Your task to perform on an android device: Search for a new lawnmower on Lowes.com Image 0: 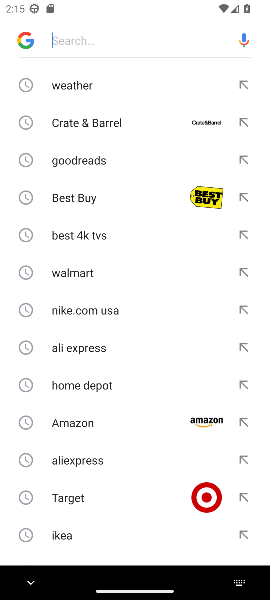
Step 0: click (101, 40)
Your task to perform on an android device: Search for a new lawnmower on Lowes.com Image 1: 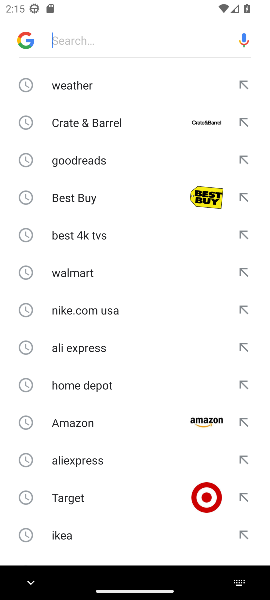
Step 1: type "Lowes.com"
Your task to perform on an android device: Search for a new lawnmower on Lowes.com Image 2: 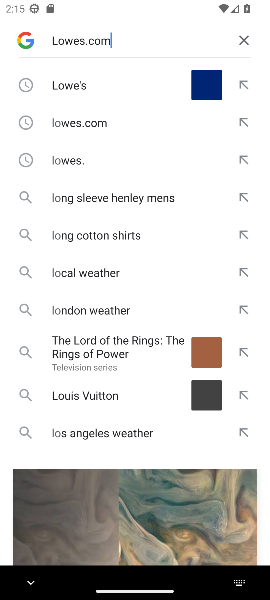
Step 2: press enter
Your task to perform on an android device: Search for a new lawnmower on Lowes.com Image 3: 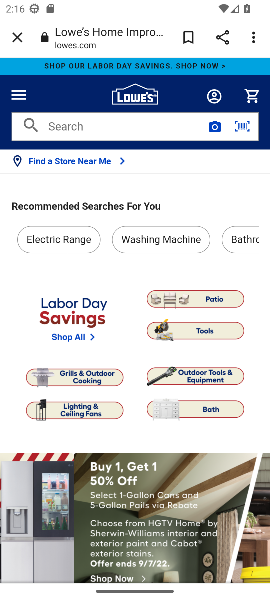
Step 3: click (66, 128)
Your task to perform on an android device: Search for a new lawnmower on Lowes.com Image 4: 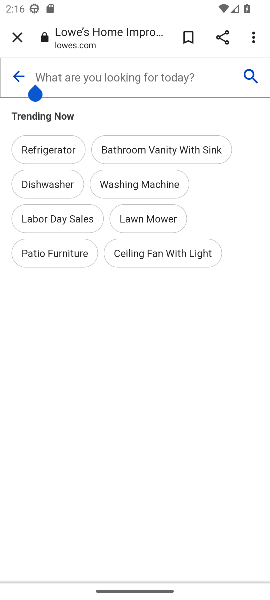
Step 4: type "lawnmower "
Your task to perform on an android device: Search for a new lawnmower on Lowes.com Image 5: 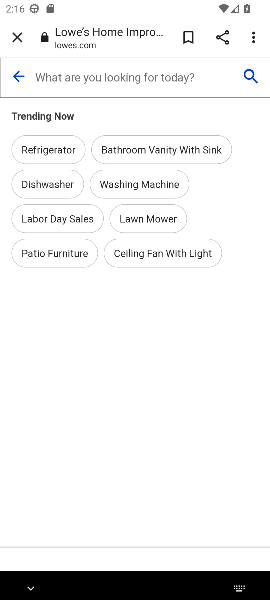
Step 5: press enter
Your task to perform on an android device: Search for a new lawnmower on Lowes.com Image 6: 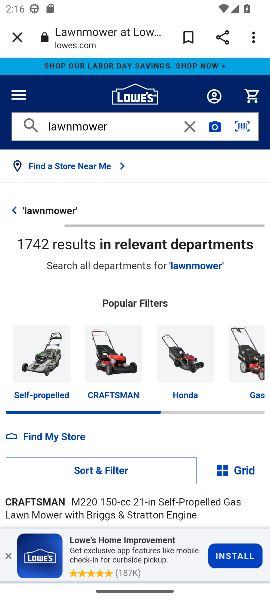
Step 6: task complete